Your task to perform on an android device: turn off notifications in google photos Image 0: 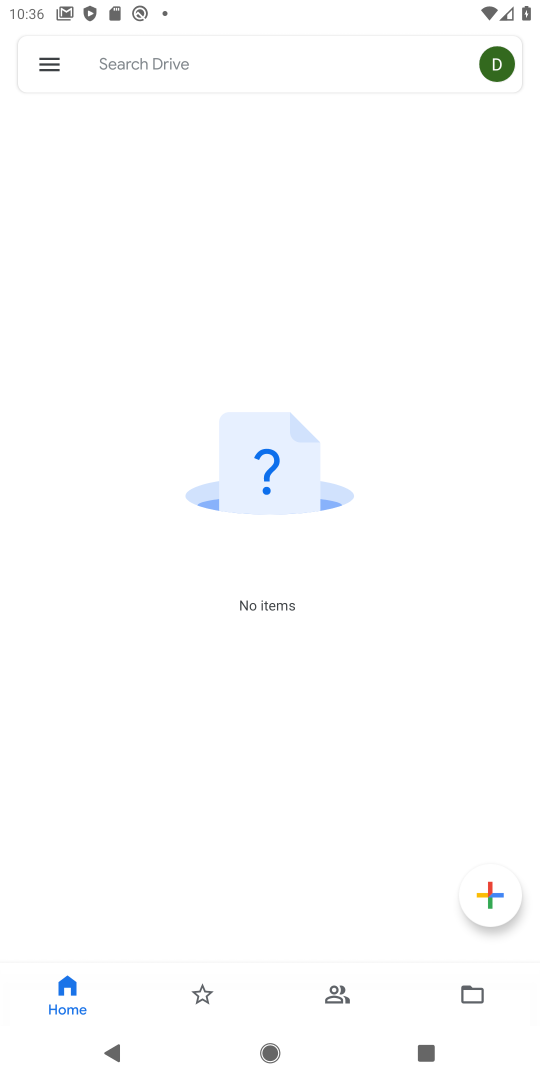
Step 0: press home button
Your task to perform on an android device: turn off notifications in google photos Image 1: 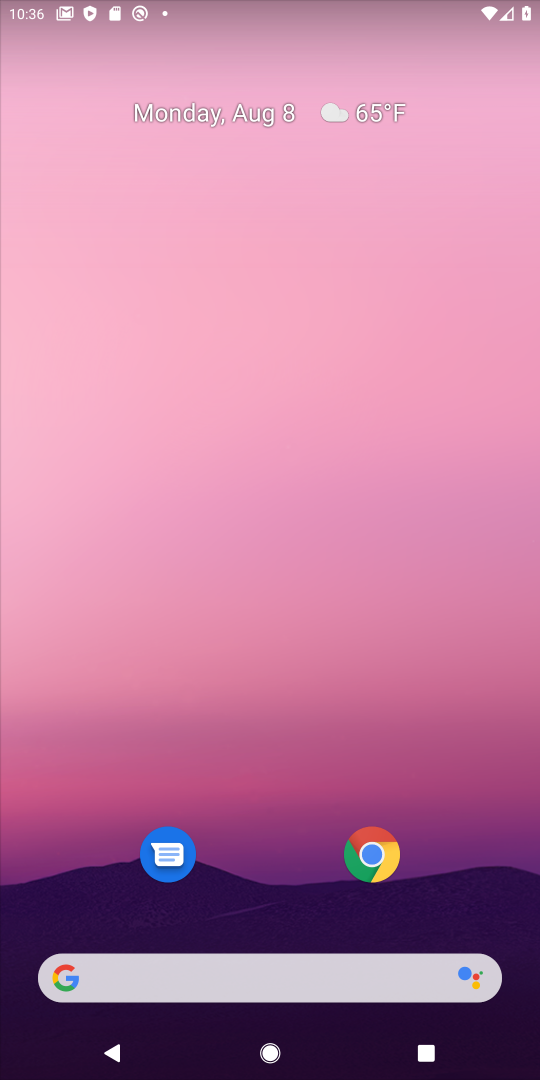
Step 1: drag from (250, 888) to (259, 158)
Your task to perform on an android device: turn off notifications in google photos Image 2: 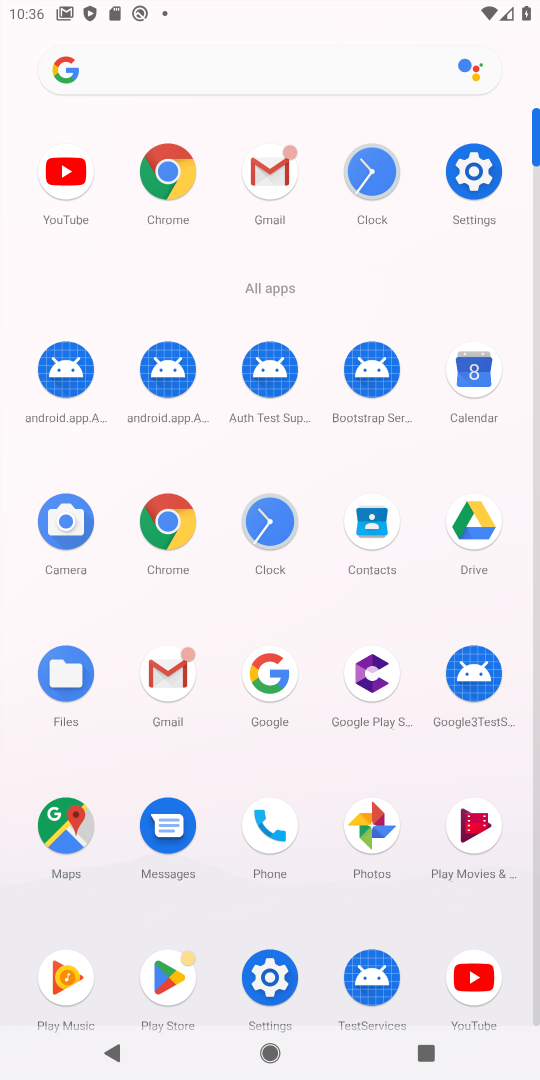
Step 2: click (350, 858)
Your task to perform on an android device: turn off notifications in google photos Image 3: 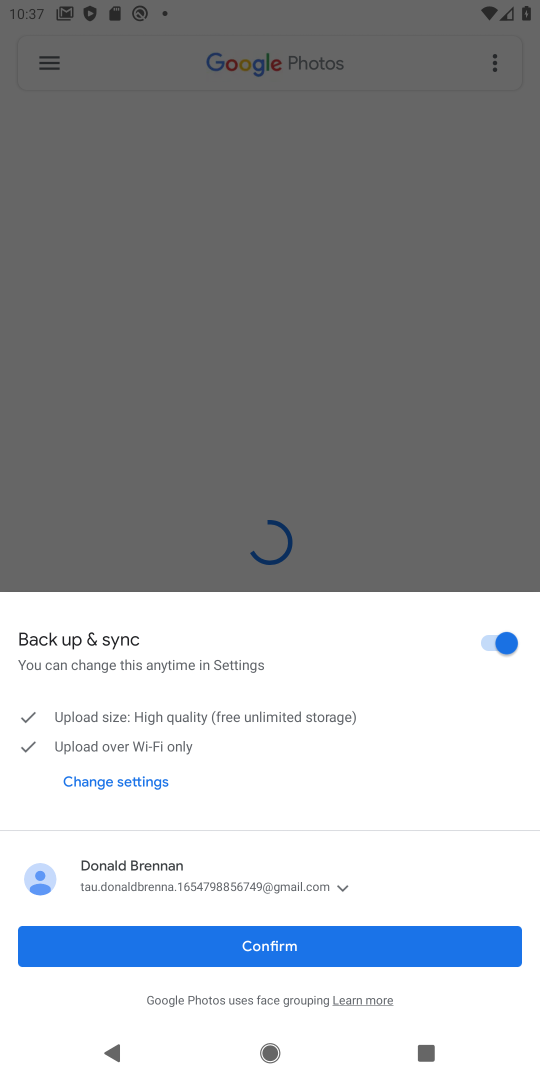
Step 3: click (239, 948)
Your task to perform on an android device: turn off notifications in google photos Image 4: 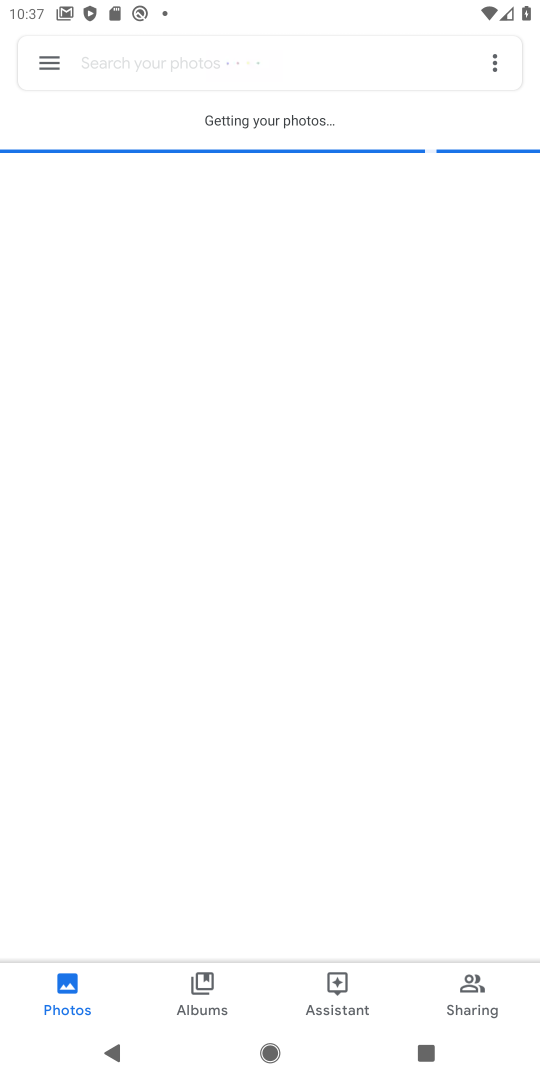
Step 4: click (53, 55)
Your task to perform on an android device: turn off notifications in google photos Image 5: 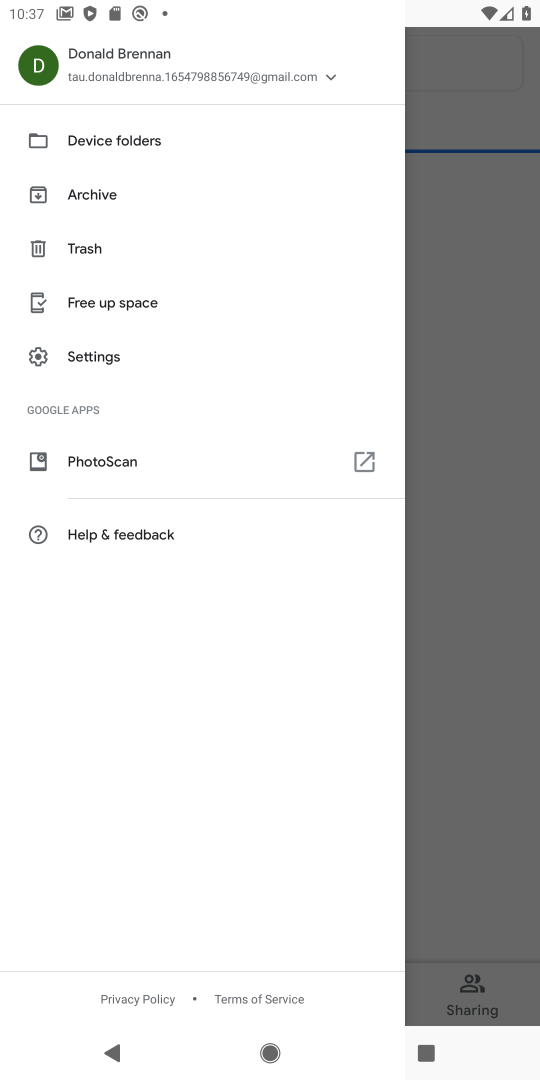
Step 5: click (138, 371)
Your task to perform on an android device: turn off notifications in google photos Image 6: 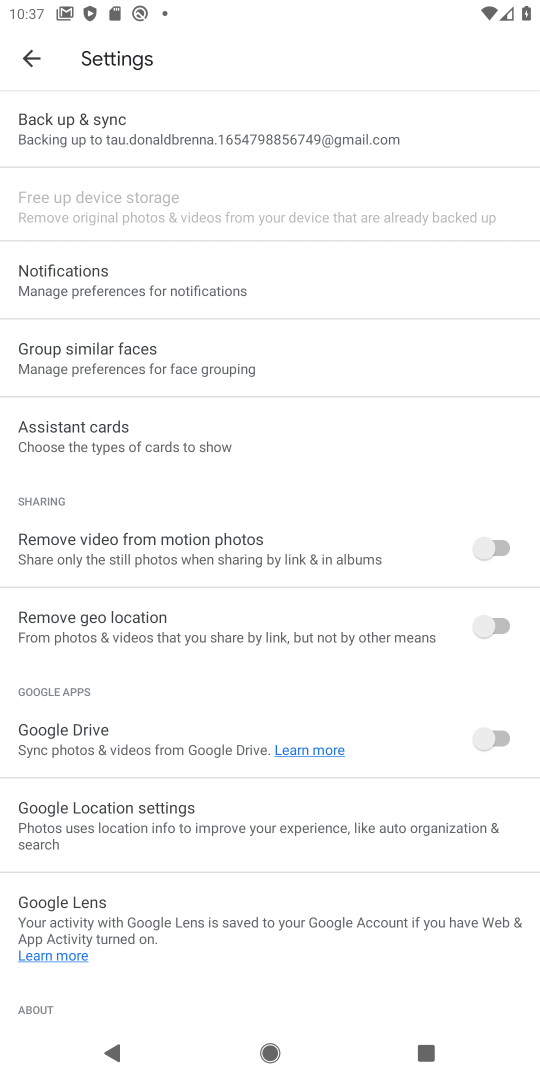
Step 6: click (82, 308)
Your task to perform on an android device: turn off notifications in google photos Image 7: 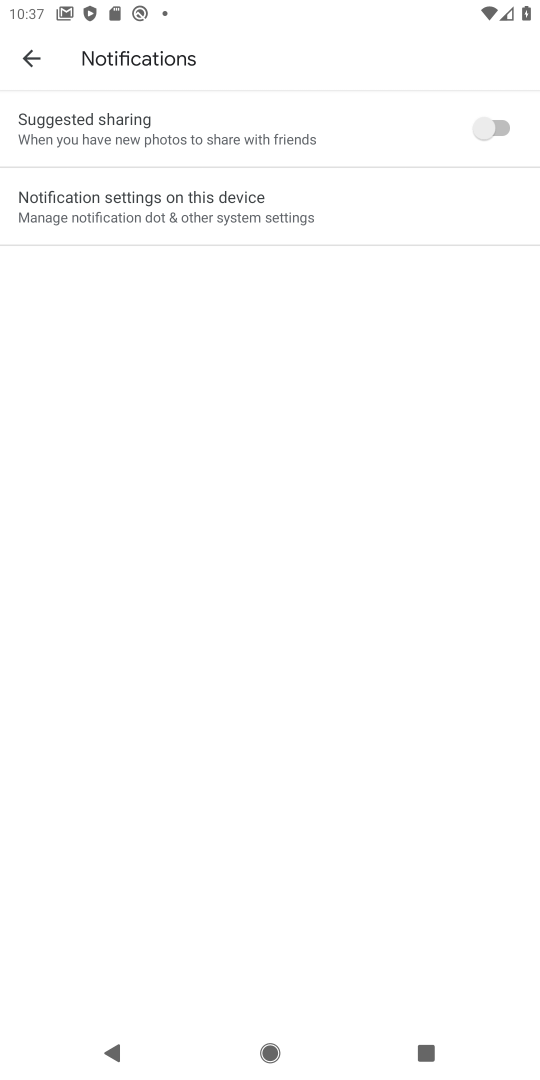
Step 7: click (264, 221)
Your task to perform on an android device: turn off notifications in google photos Image 8: 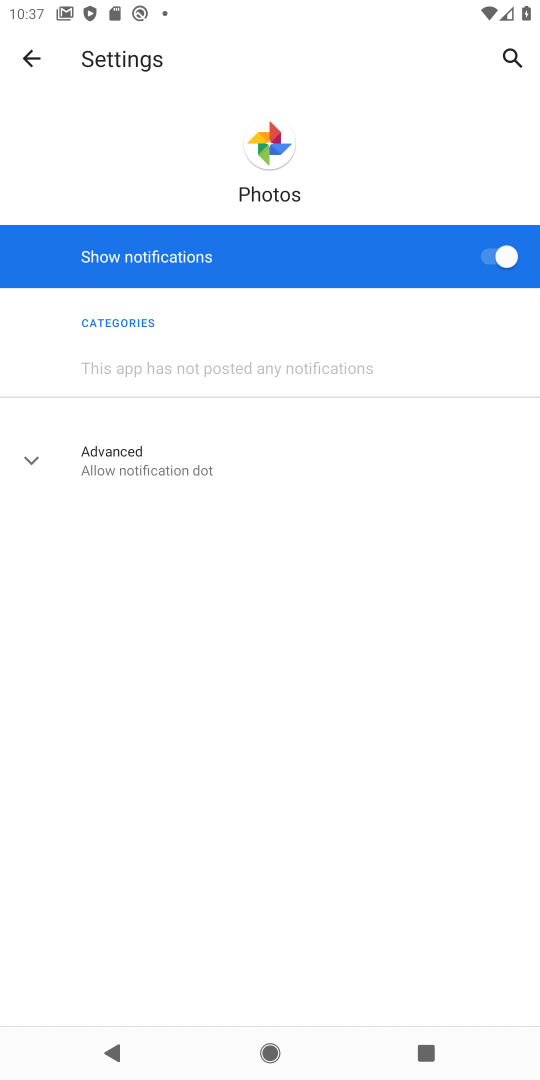
Step 8: click (186, 451)
Your task to perform on an android device: turn off notifications in google photos Image 9: 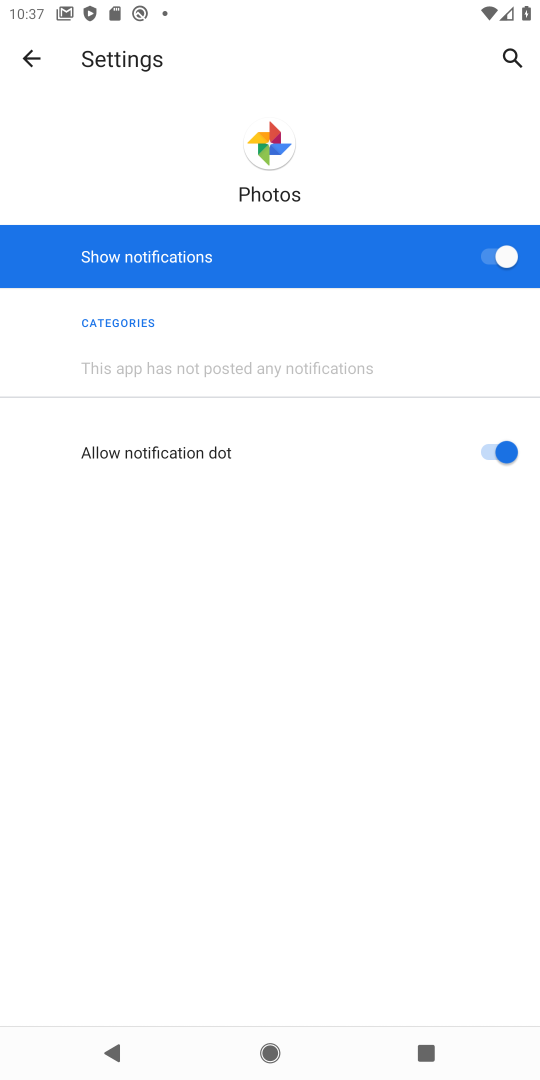
Step 9: click (473, 450)
Your task to perform on an android device: turn off notifications in google photos Image 10: 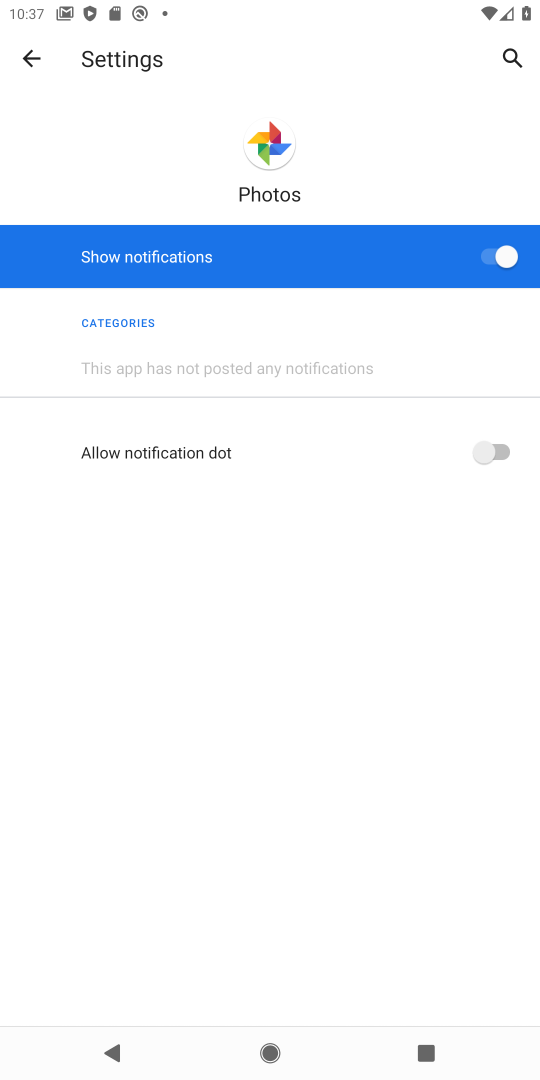
Step 10: task complete